Your task to perform on an android device: What's the weather going to be this weekend? Image 0: 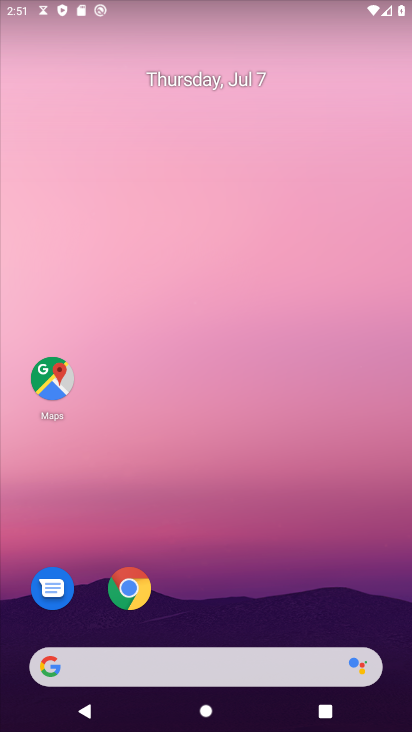
Step 0: drag from (229, 605) to (229, 94)
Your task to perform on an android device: What's the weather going to be this weekend? Image 1: 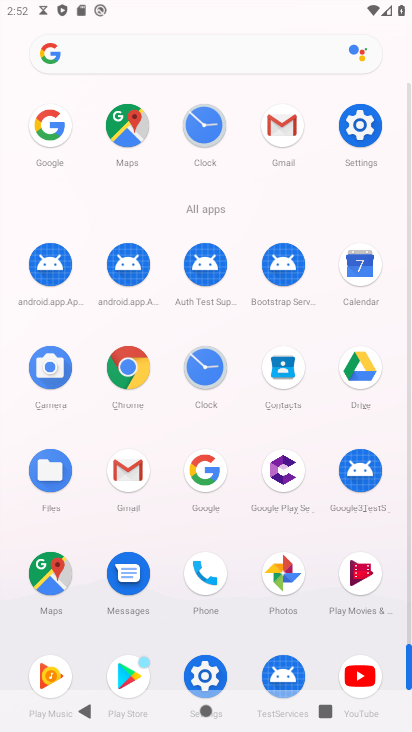
Step 1: click (49, 125)
Your task to perform on an android device: What's the weather going to be this weekend? Image 2: 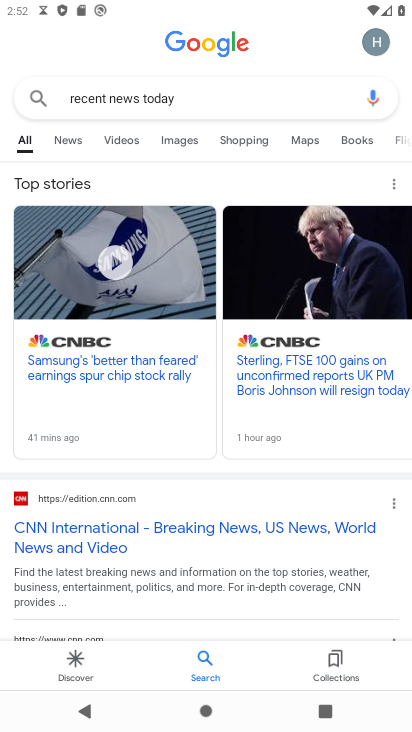
Step 2: click (301, 104)
Your task to perform on an android device: What's the weather going to be this weekend? Image 3: 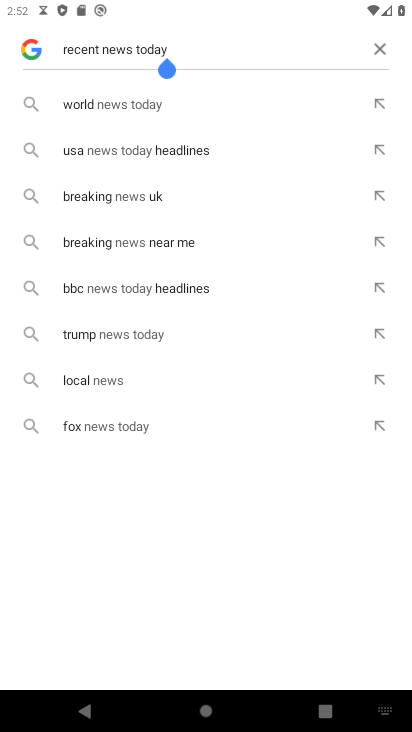
Step 3: click (378, 46)
Your task to perform on an android device: What's the weather going to be this weekend? Image 4: 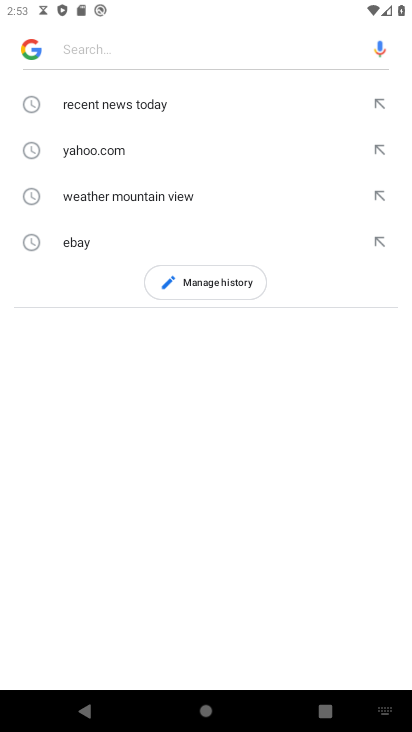
Step 4: type "weather going to be this weekend"
Your task to perform on an android device: What's the weather going to be this weekend? Image 5: 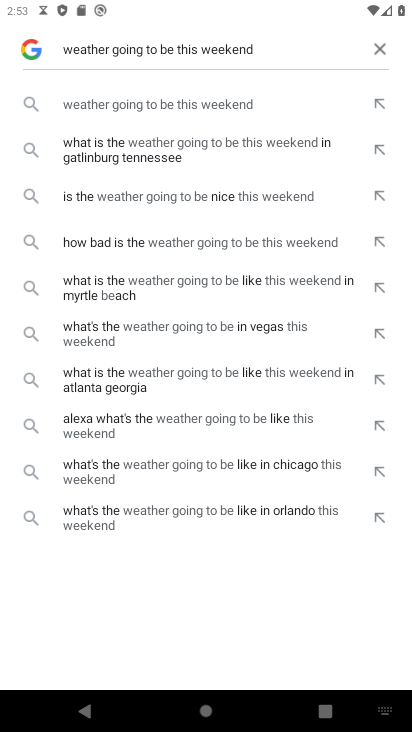
Step 5: click (172, 108)
Your task to perform on an android device: What's the weather going to be this weekend? Image 6: 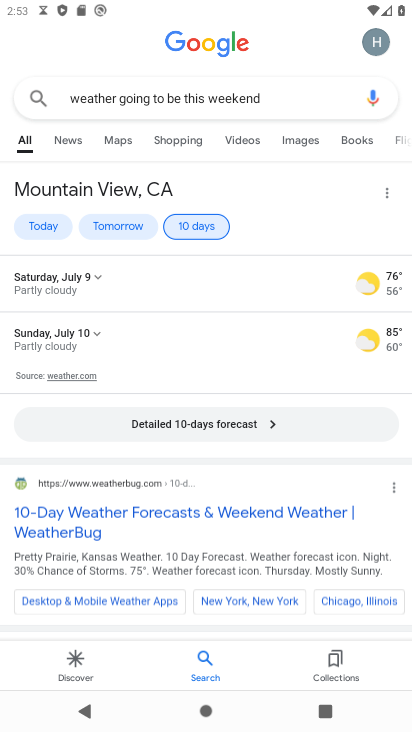
Step 6: task complete